Your task to perform on an android device: toggle notification dots Image 0: 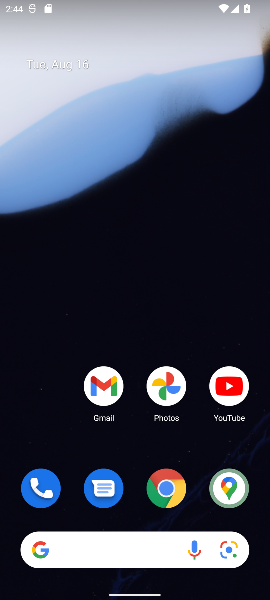
Step 0: drag from (64, 405) to (118, 74)
Your task to perform on an android device: toggle notification dots Image 1: 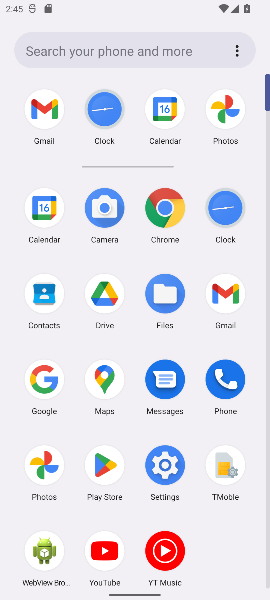
Step 1: task complete